Your task to perform on an android device: see creations saved in the google photos Image 0: 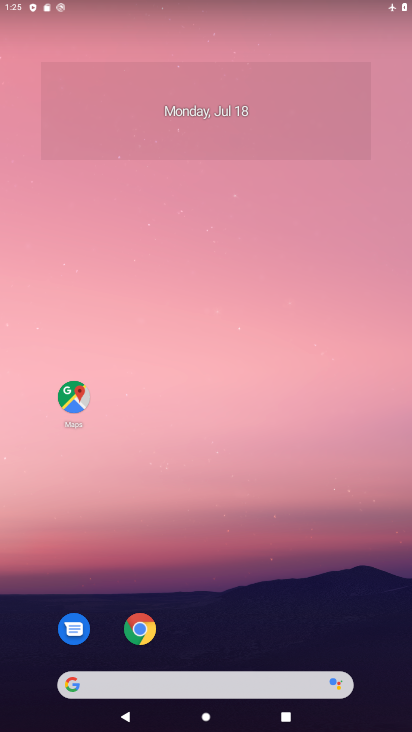
Step 0: drag from (238, 570) to (227, 244)
Your task to perform on an android device: see creations saved in the google photos Image 1: 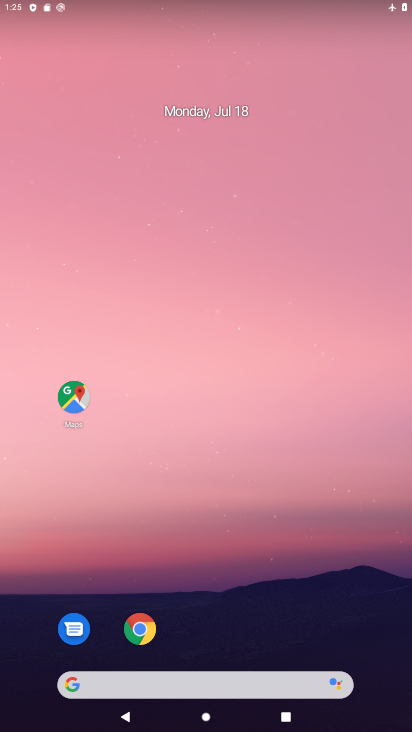
Step 1: drag from (229, 467) to (215, 169)
Your task to perform on an android device: see creations saved in the google photos Image 2: 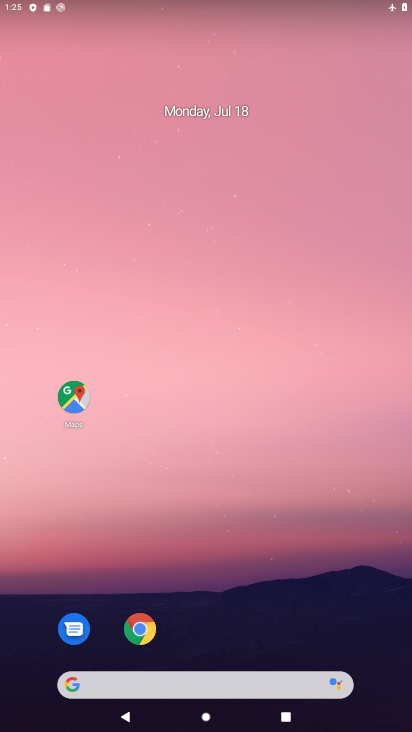
Step 2: drag from (231, 586) to (215, 102)
Your task to perform on an android device: see creations saved in the google photos Image 3: 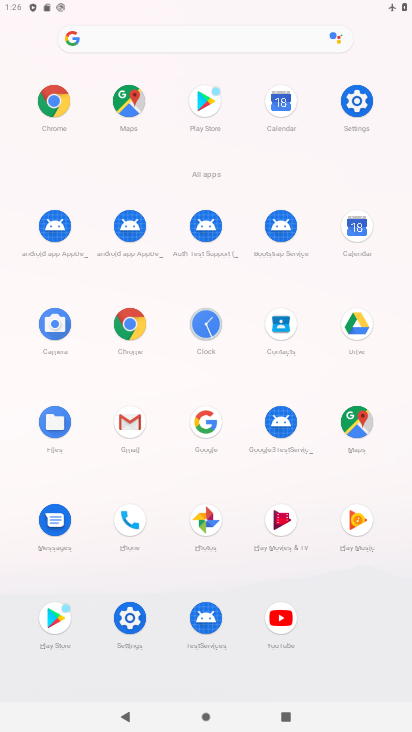
Step 3: click (201, 515)
Your task to perform on an android device: see creations saved in the google photos Image 4: 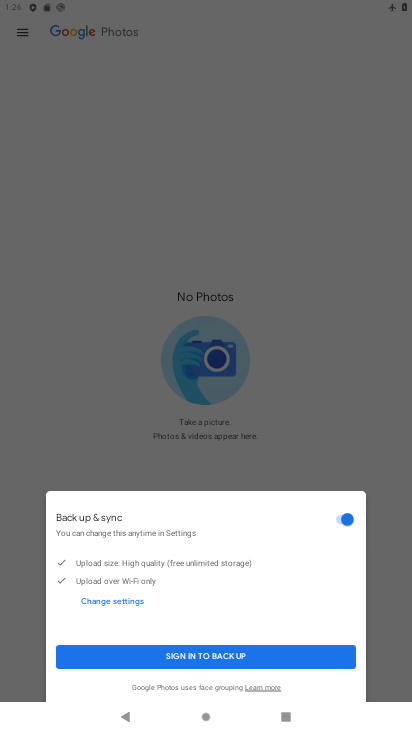
Step 4: click (326, 317)
Your task to perform on an android device: see creations saved in the google photos Image 5: 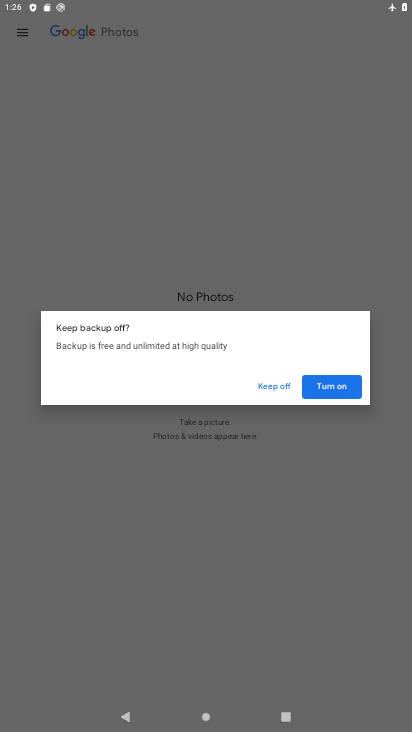
Step 5: click (275, 386)
Your task to perform on an android device: see creations saved in the google photos Image 6: 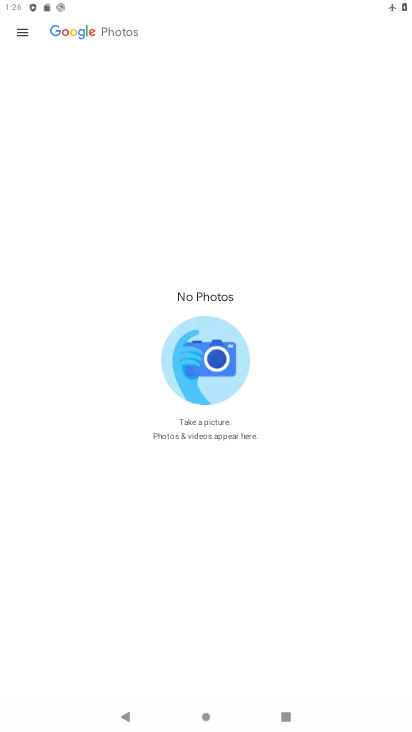
Step 6: task complete